Your task to perform on an android device: Go to battery settings Image 0: 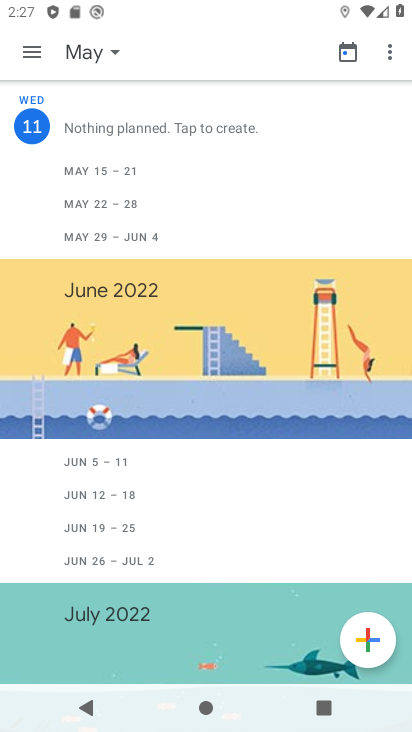
Step 0: press back button
Your task to perform on an android device: Go to battery settings Image 1: 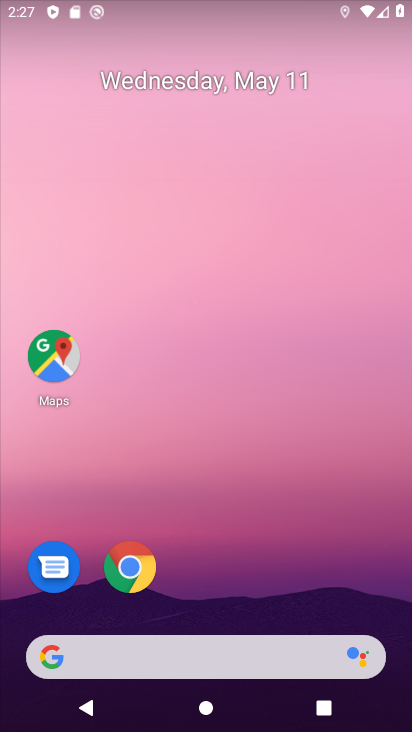
Step 1: drag from (222, 529) to (191, 27)
Your task to perform on an android device: Go to battery settings Image 2: 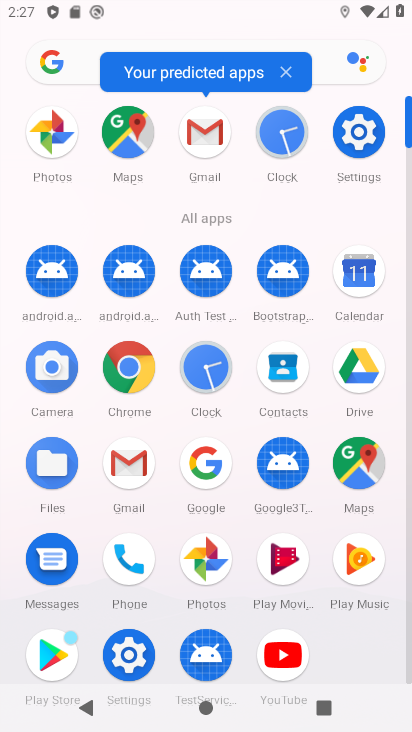
Step 2: drag from (6, 578) to (8, 291)
Your task to perform on an android device: Go to battery settings Image 3: 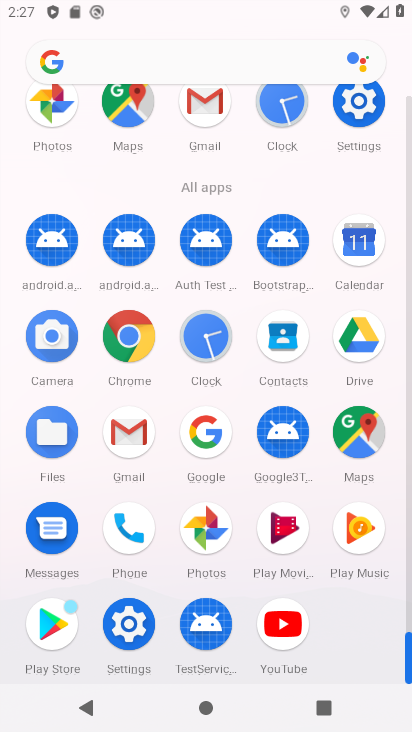
Step 3: click (127, 624)
Your task to perform on an android device: Go to battery settings Image 4: 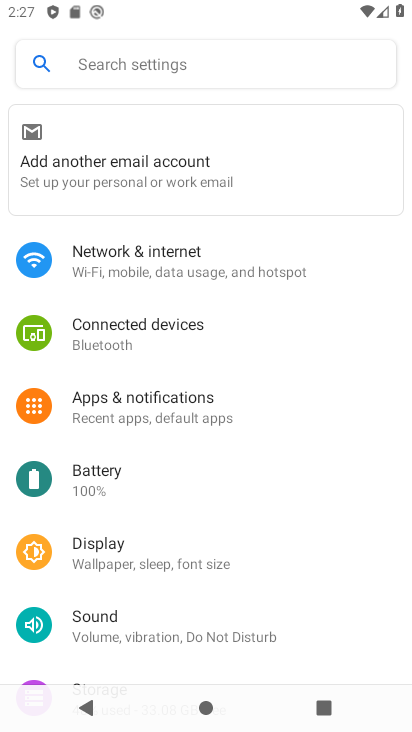
Step 4: click (128, 469)
Your task to perform on an android device: Go to battery settings Image 5: 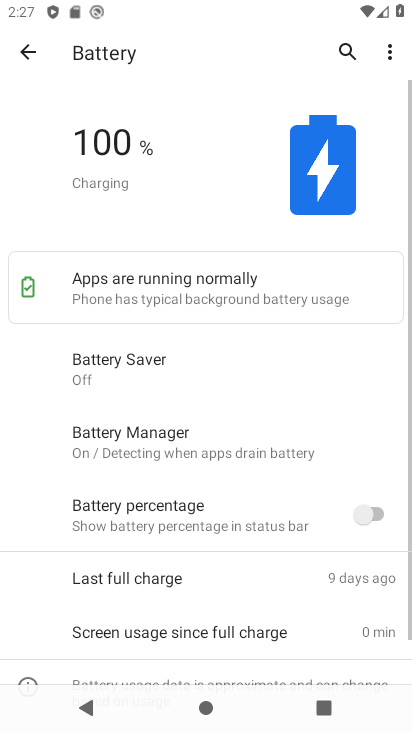
Step 5: task complete